Your task to perform on an android device: Go to ESPN.com Image 0: 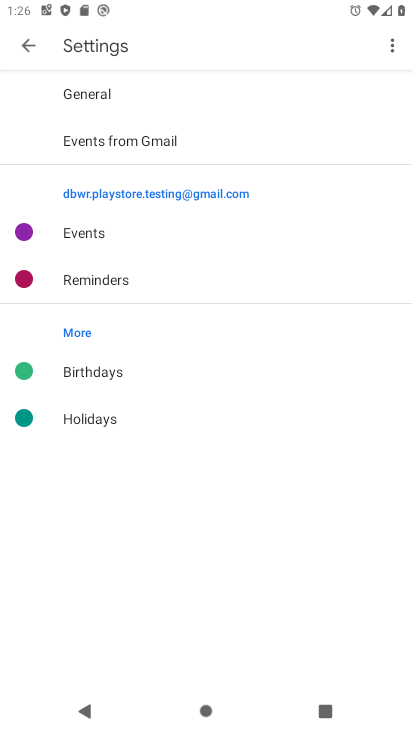
Step 0: press home button
Your task to perform on an android device: Go to ESPN.com Image 1: 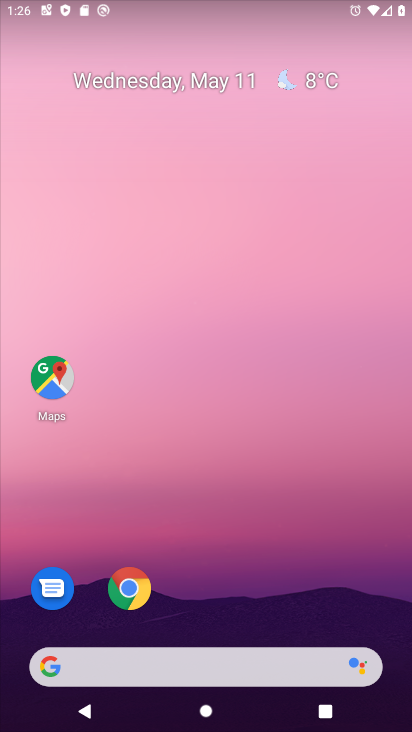
Step 1: click (130, 584)
Your task to perform on an android device: Go to ESPN.com Image 2: 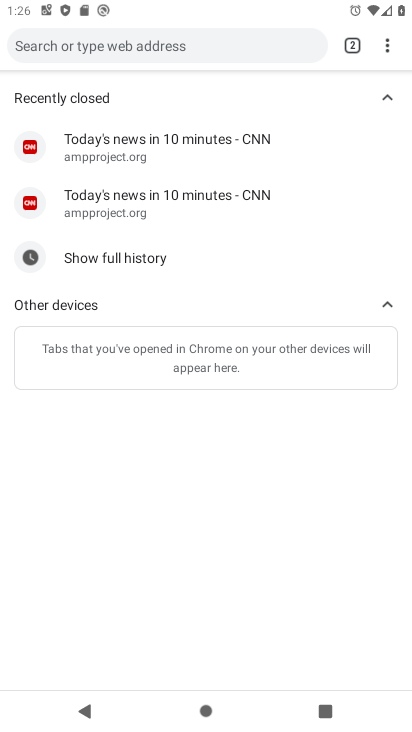
Step 2: click (64, 46)
Your task to perform on an android device: Go to ESPN.com Image 3: 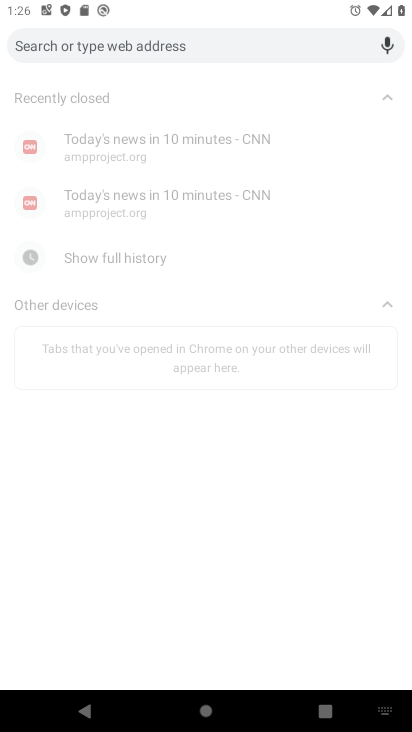
Step 3: type "espn.com"
Your task to perform on an android device: Go to ESPN.com Image 4: 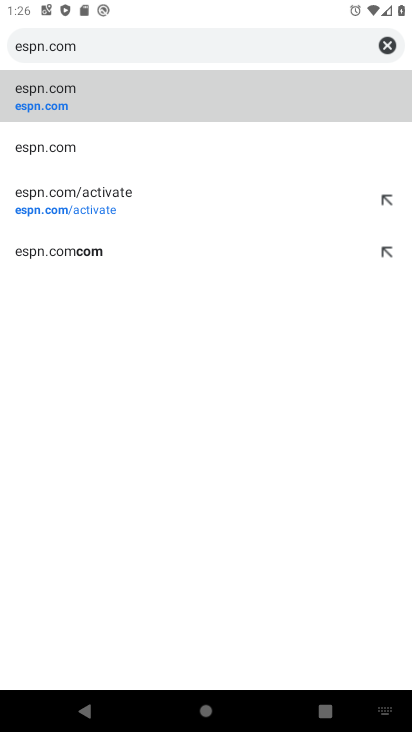
Step 4: click (48, 96)
Your task to perform on an android device: Go to ESPN.com Image 5: 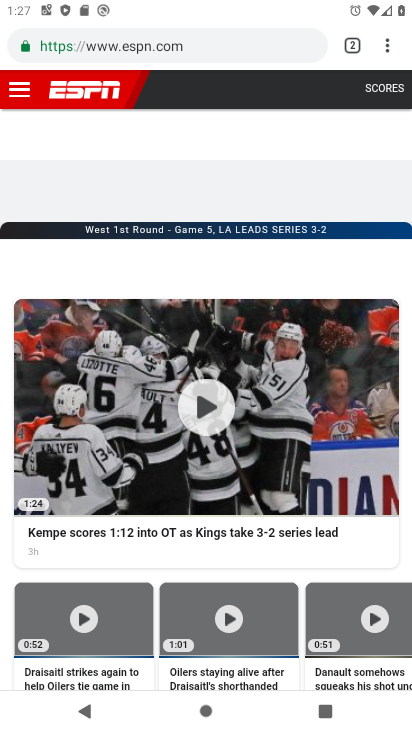
Step 5: task complete